Your task to perform on an android device: Clear the cart on costco.com. Image 0: 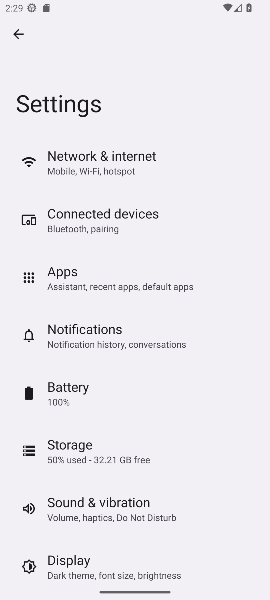
Step 0: press home button
Your task to perform on an android device: Clear the cart on costco.com. Image 1: 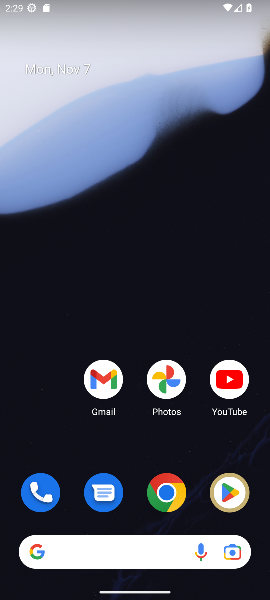
Step 1: click (162, 501)
Your task to perform on an android device: Clear the cart on costco.com. Image 2: 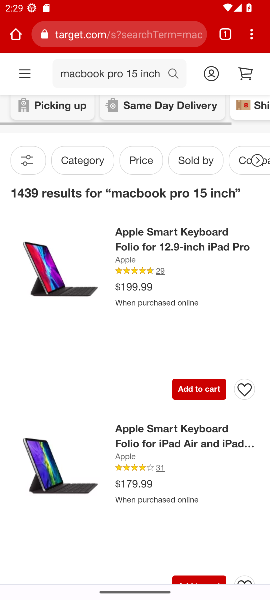
Step 2: click (117, 36)
Your task to perform on an android device: Clear the cart on costco.com. Image 3: 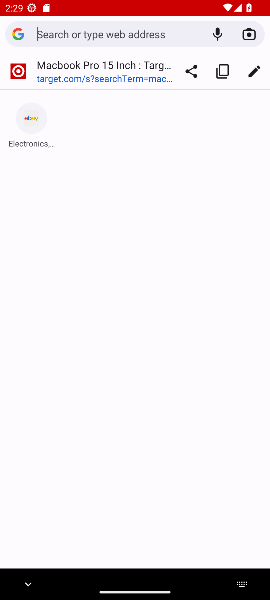
Step 3: type "costco.com"
Your task to perform on an android device: Clear the cart on costco.com. Image 4: 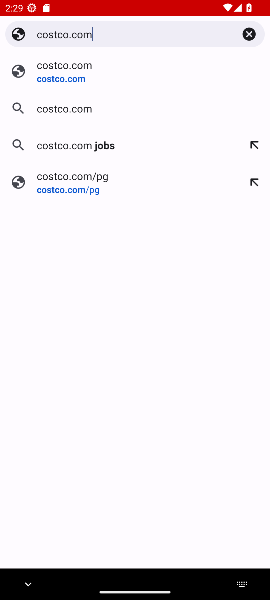
Step 4: click (87, 71)
Your task to perform on an android device: Clear the cart on costco.com. Image 5: 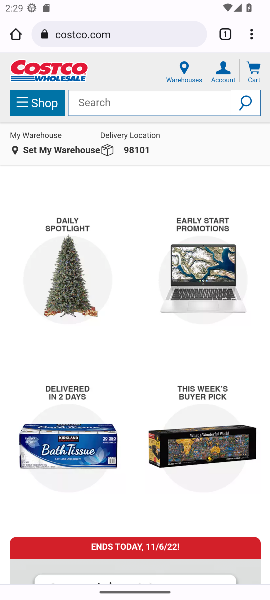
Step 5: click (253, 68)
Your task to perform on an android device: Clear the cart on costco.com. Image 6: 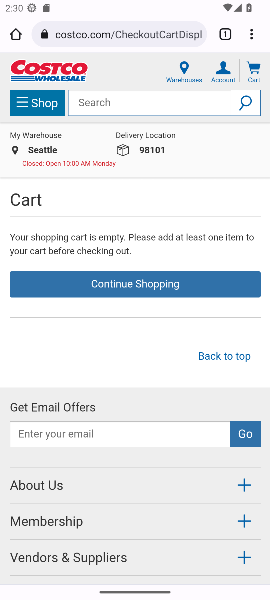
Step 6: task complete